Your task to perform on an android device: turn on wifi Image 0: 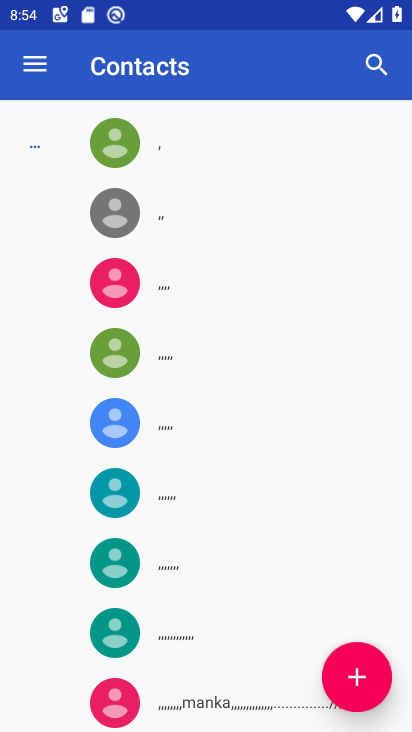
Step 0: press home button
Your task to perform on an android device: turn on wifi Image 1: 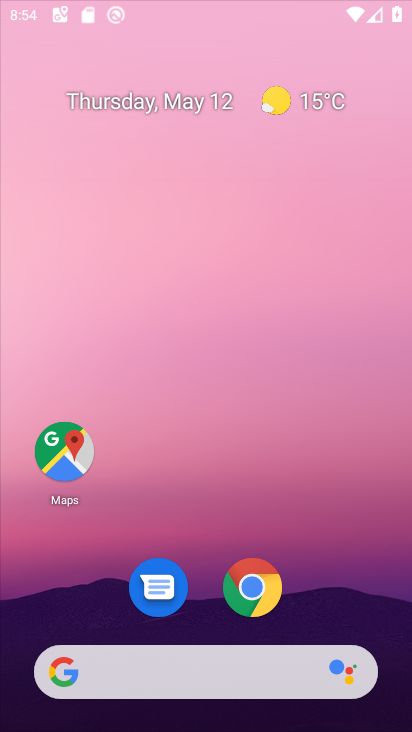
Step 1: task complete